Your task to perform on an android device: turn on airplane mode Image 0: 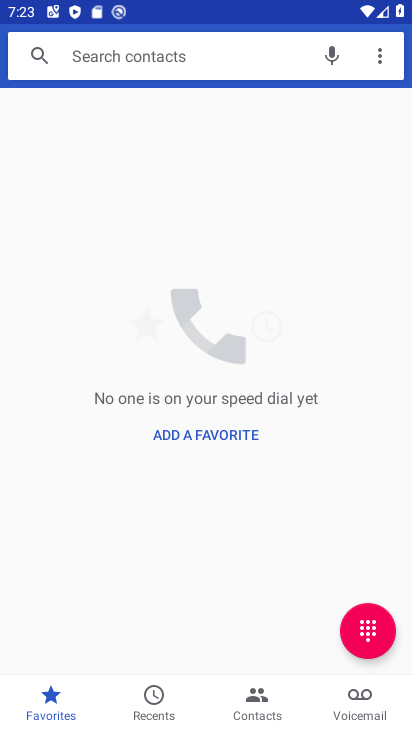
Step 0: press home button
Your task to perform on an android device: turn on airplane mode Image 1: 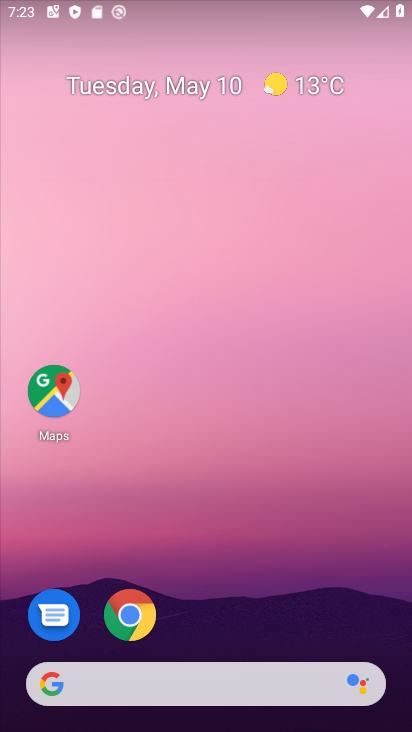
Step 1: drag from (233, 553) to (111, 1)
Your task to perform on an android device: turn on airplane mode Image 2: 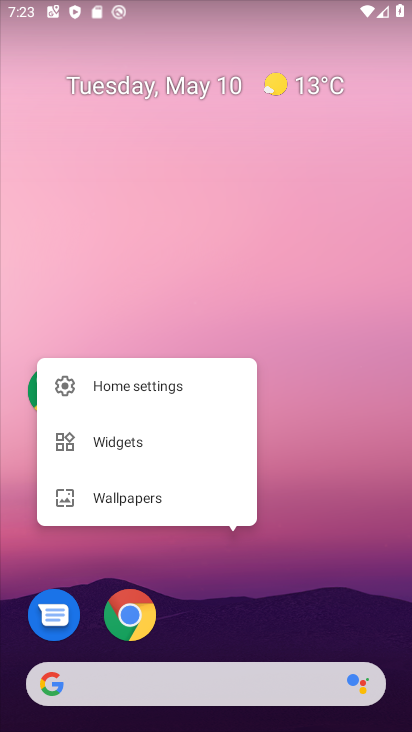
Step 2: click (282, 421)
Your task to perform on an android device: turn on airplane mode Image 3: 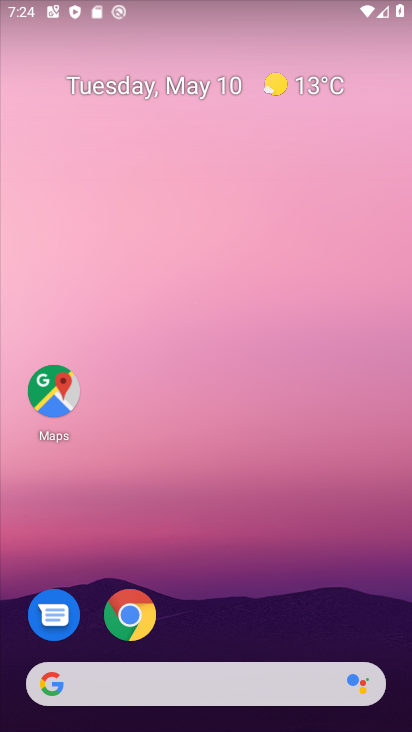
Step 3: drag from (183, 548) to (143, 89)
Your task to perform on an android device: turn on airplane mode Image 4: 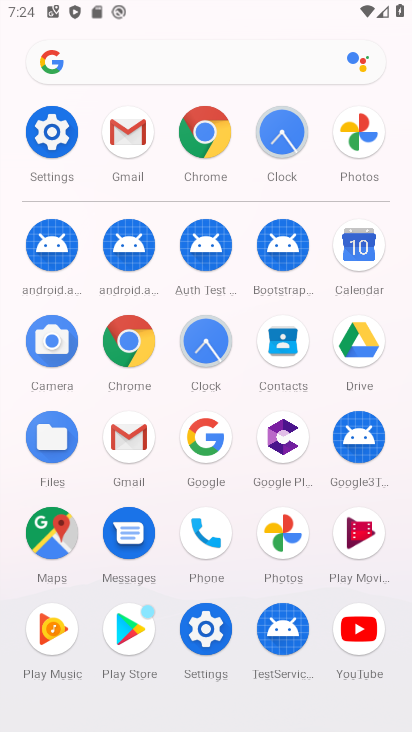
Step 4: click (53, 132)
Your task to perform on an android device: turn on airplane mode Image 5: 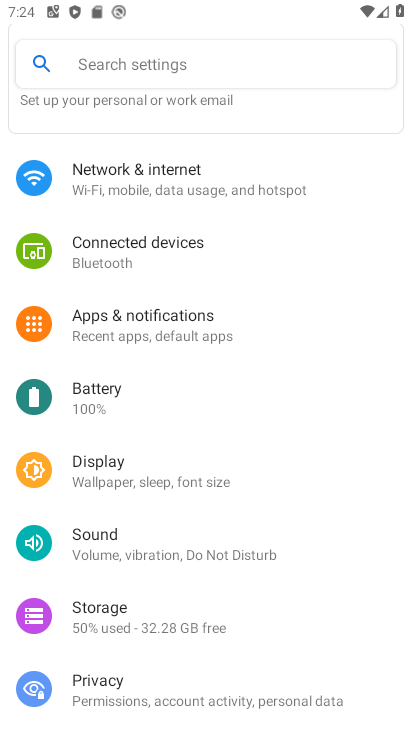
Step 5: click (144, 175)
Your task to perform on an android device: turn on airplane mode Image 6: 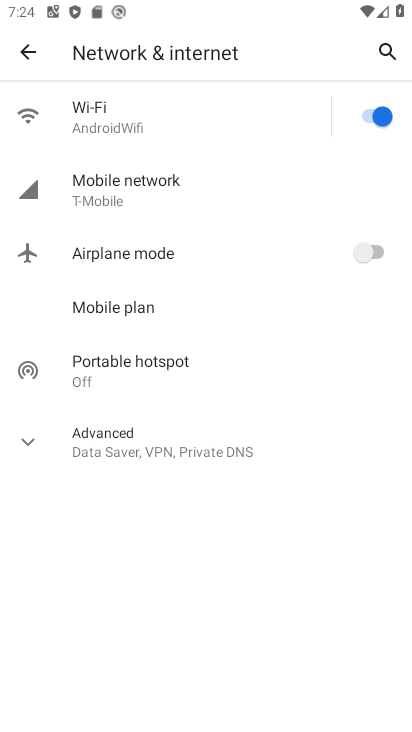
Step 6: click (366, 247)
Your task to perform on an android device: turn on airplane mode Image 7: 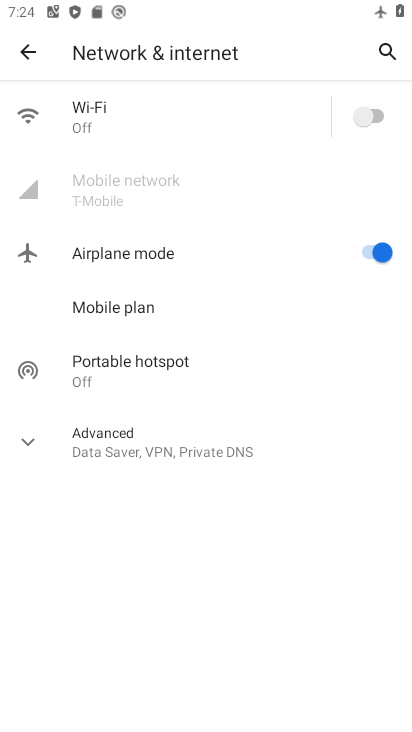
Step 7: task complete